Your task to perform on an android device: delete location history Image 0: 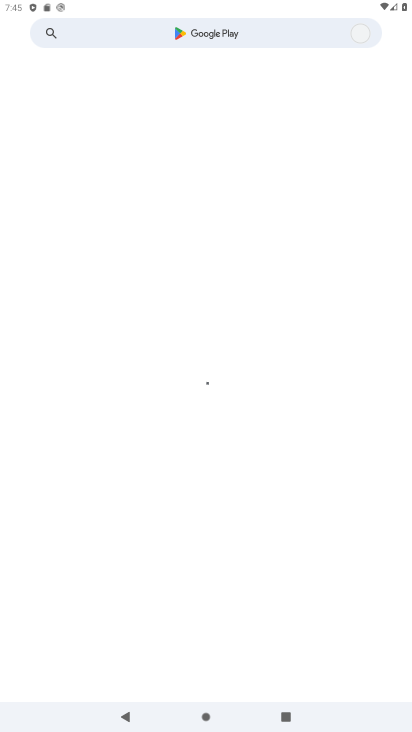
Step 0: press home button
Your task to perform on an android device: delete location history Image 1: 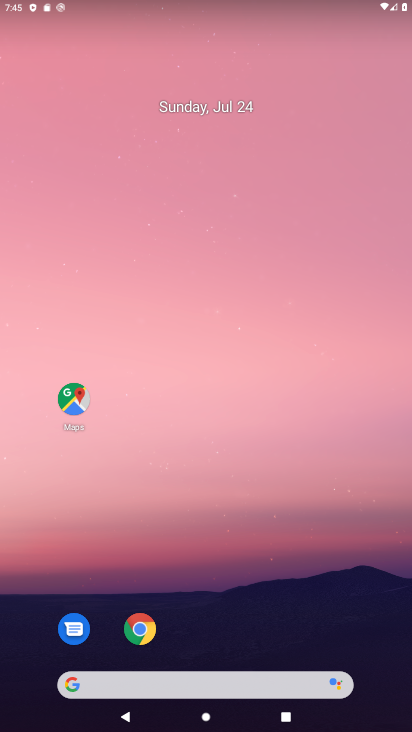
Step 1: drag from (190, 671) to (204, 135)
Your task to perform on an android device: delete location history Image 2: 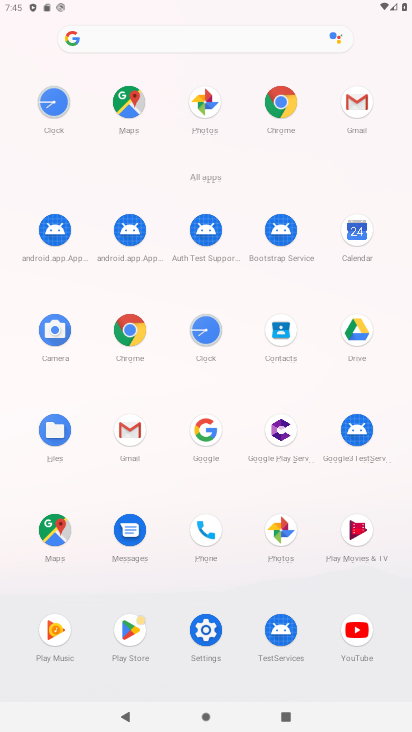
Step 2: click (211, 646)
Your task to perform on an android device: delete location history Image 3: 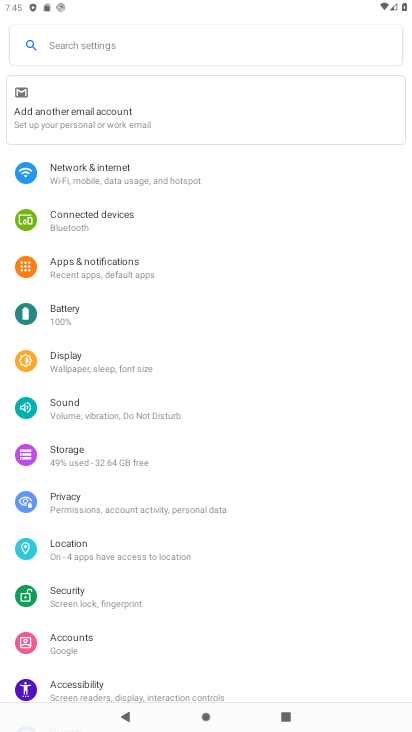
Step 3: click (119, 560)
Your task to perform on an android device: delete location history Image 4: 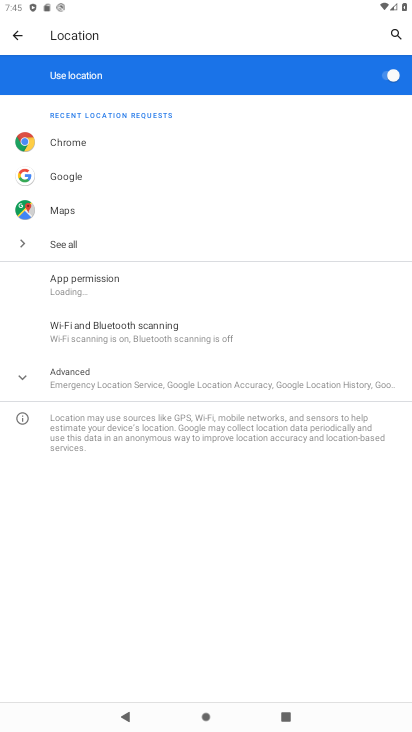
Step 4: click (141, 392)
Your task to perform on an android device: delete location history Image 5: 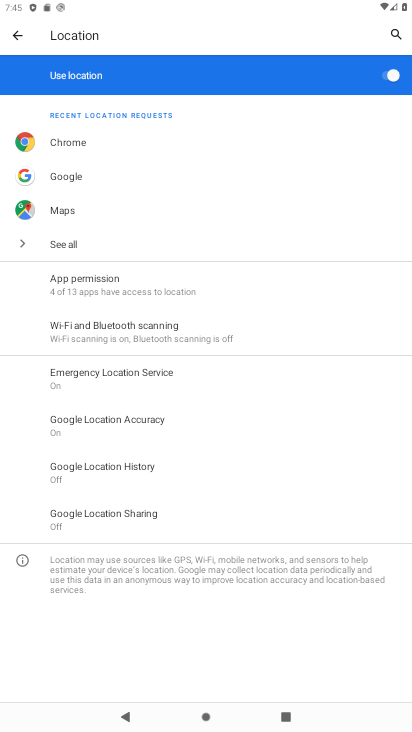
Step 5: click (135, 465)
Your task to perform on an android device: delete location history Image 6: 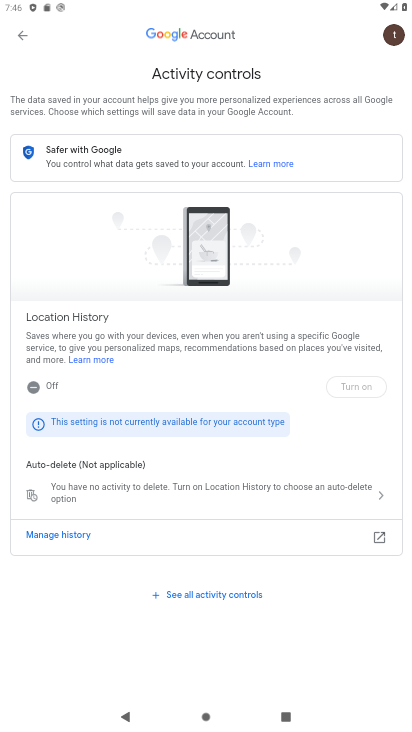
Step 6: click (130, 489)
Your task to perform on an android device: delete location history Image 7: 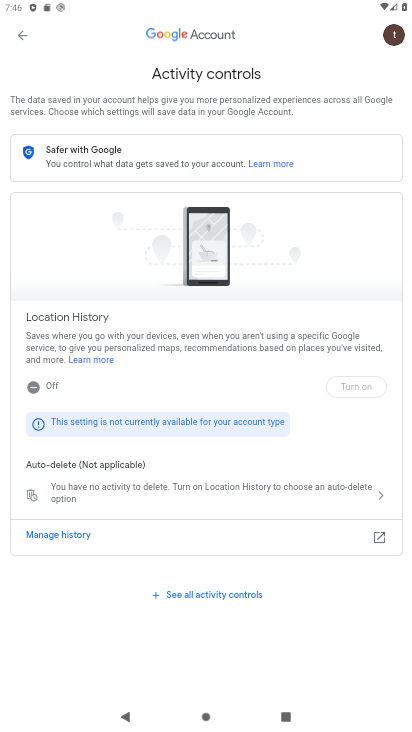
Step 7: click (173, 498)
Your task to perform on an android device: delete location history Image 8: 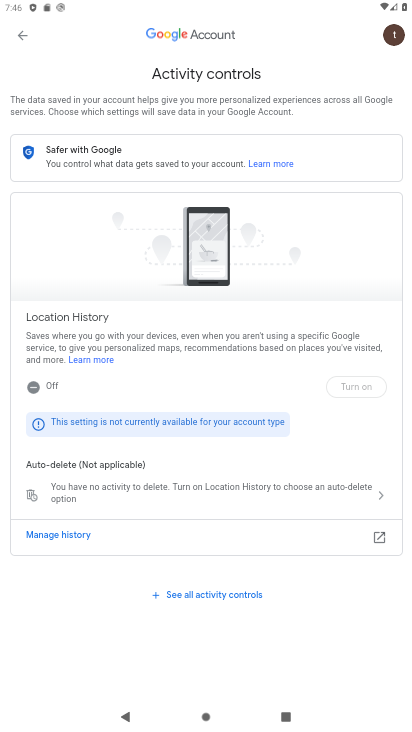
Step 8: click (173, 498)
Your task to perform on an android device: delete location history Image 9: 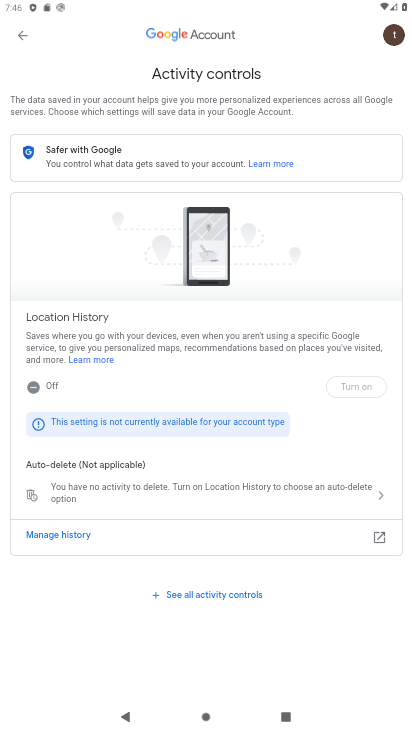
Step 9: click (173, 498)
Your task to perform on an android device: delete location history Image 10: 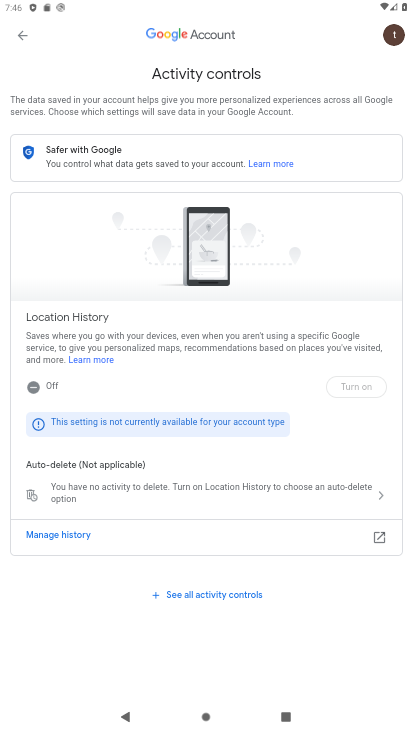
Step 10: click (177, 495)
Your task to perform on an android device: delete location history Image 11: 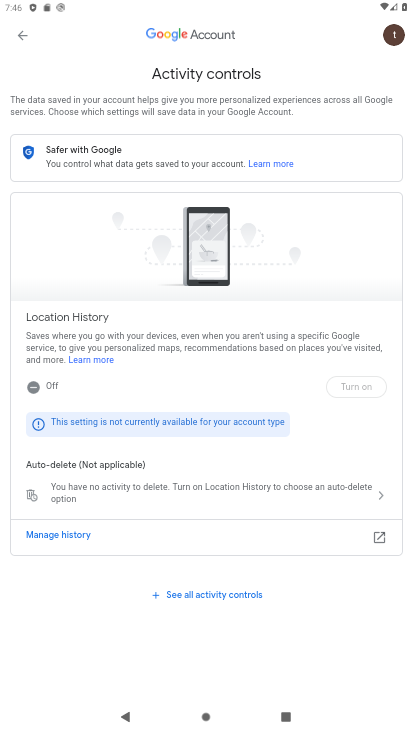
Step 11: click (178, 495)
Your task to perform on an android device: delete location history Image 12: 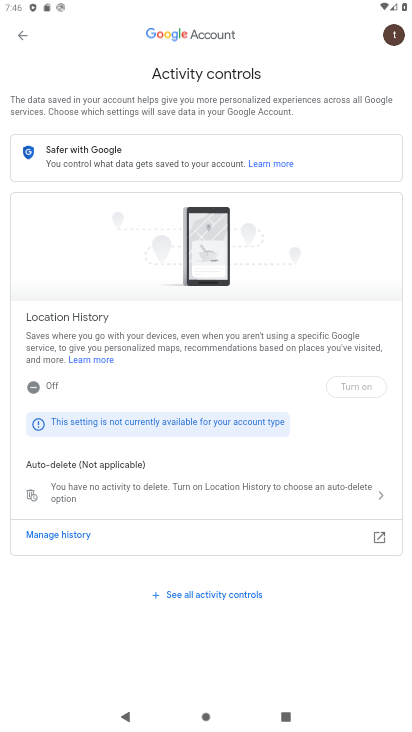
Step 12: task complete